Your task to perform on an android device: Turn on the flashlight Image 0: 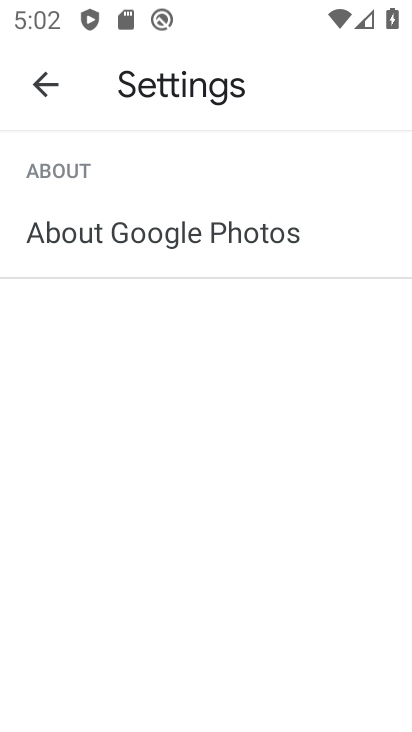
Step 0: press home button
Your task to perform on an android device: Turn on the flashlight Image 1: 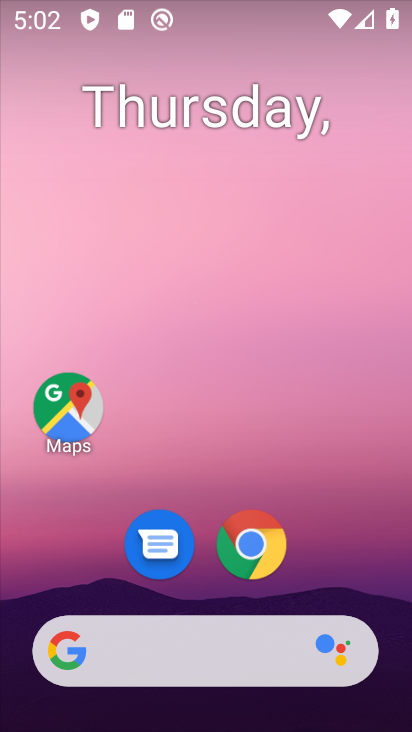
Step 1: task complete